Your task to perform on an android device: Open the phone app and click the voicemail tab. Image 0: 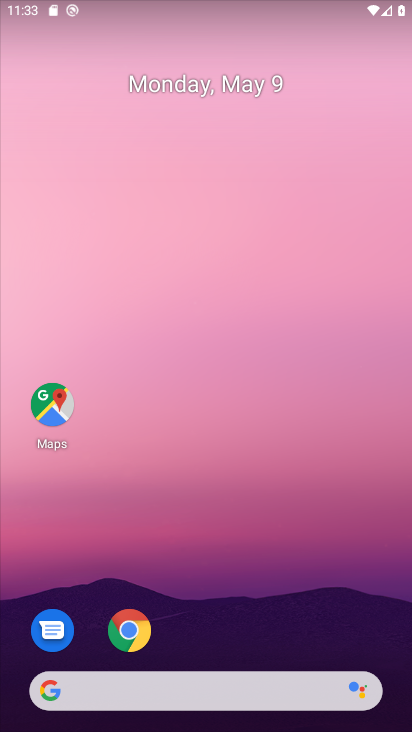
Step 0: drag from (229, 544) to (66, 112)
Your task to perform on an android device: Open the phone app and click the voicemail tab. Image 1: 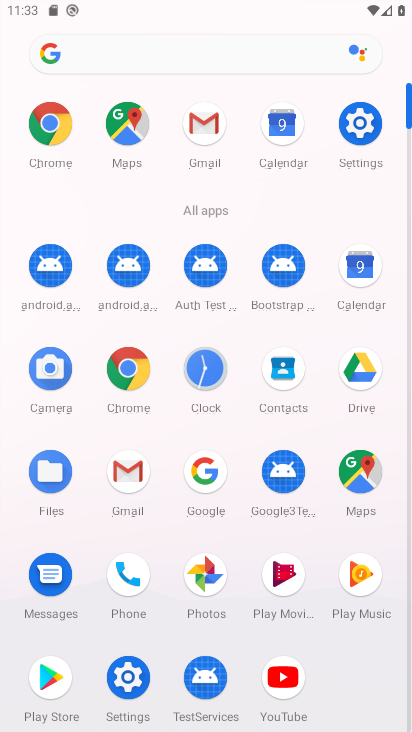
Step 1: click (127, 577)
Your task to perform on an android device: Open the phone app and click the voicemail tab. Image 2: 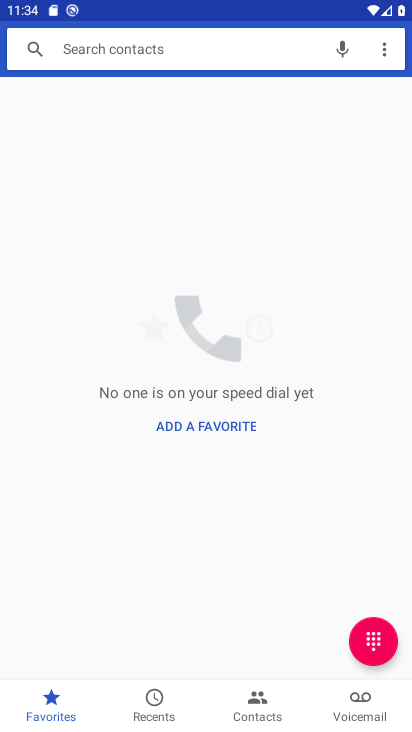
Step 2: click (361, 702)
Your task to perform on an android device: Open the phone app and click the voicemail tab. Image 3: 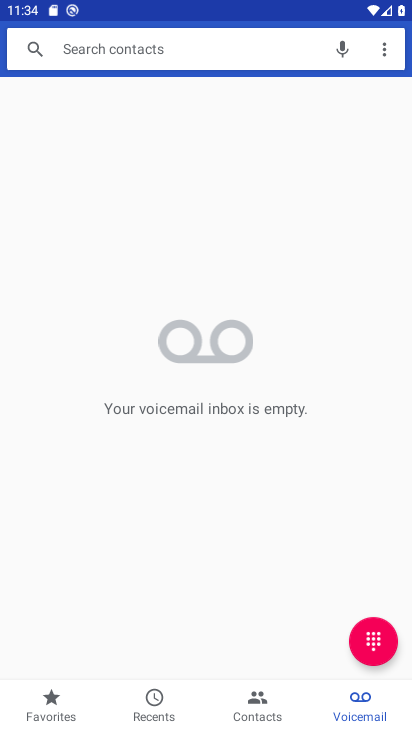
Step 3: task complete